Your task to perform on an android device: open app "Facebook Lite" Image 0: 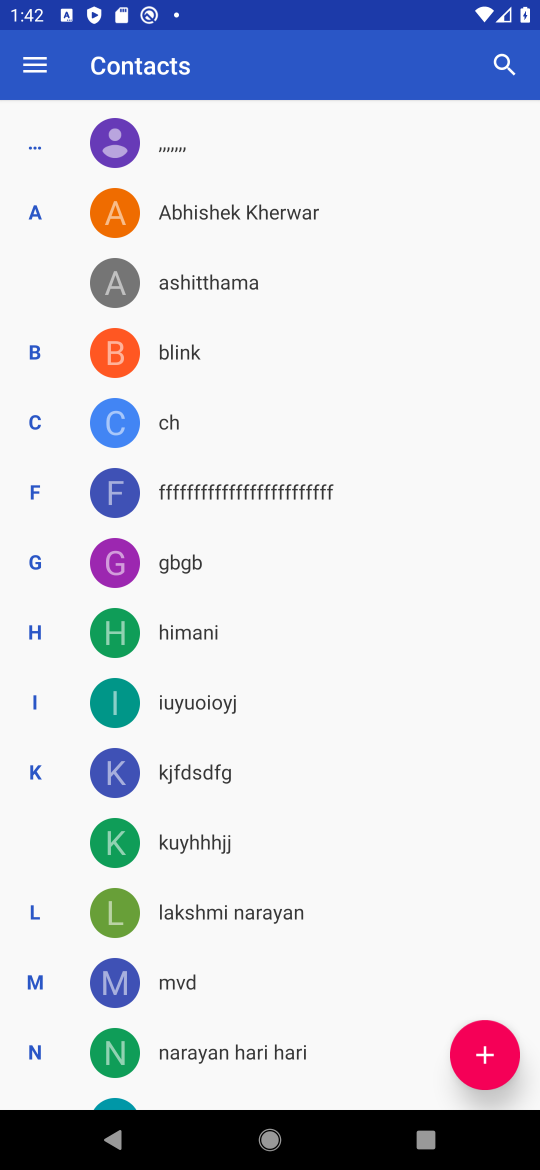
Step 0: press back button
Your task to perform on an android device: open app "Facebook Lite" Image 1: 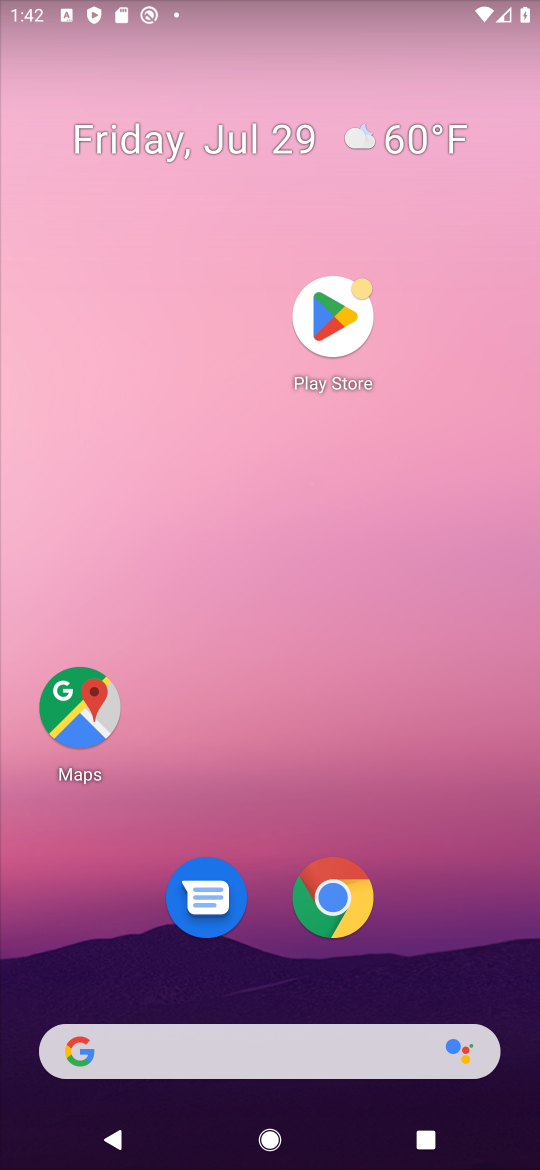
Step 1: click (308, 313)
Your task to perform on an android device: open app "Facebook Lite" Image 2: 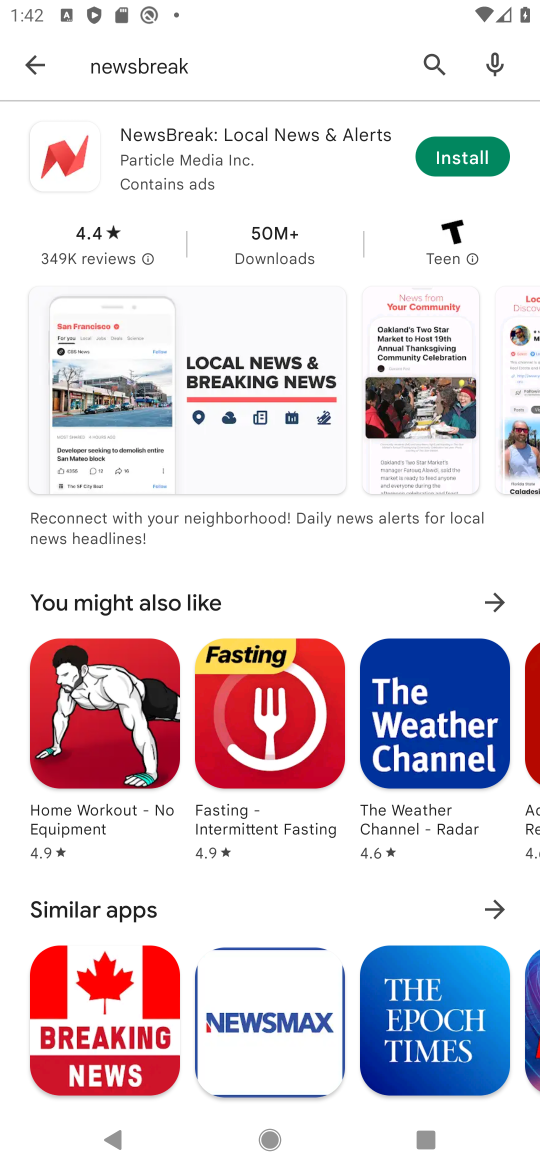
Step 2: click (434, 59)
Your task to perform on an android device: open app "Facebook Lite" Image 3: 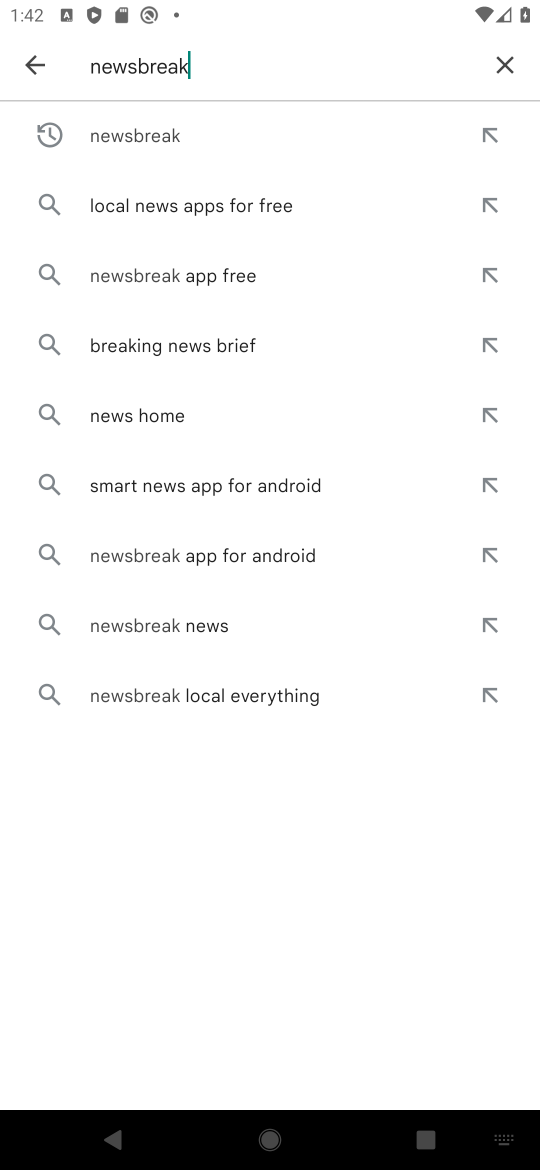
Step 3: click (498, 64)
Your task to perform on an android device: open app "Facebook Lite" Image 4: 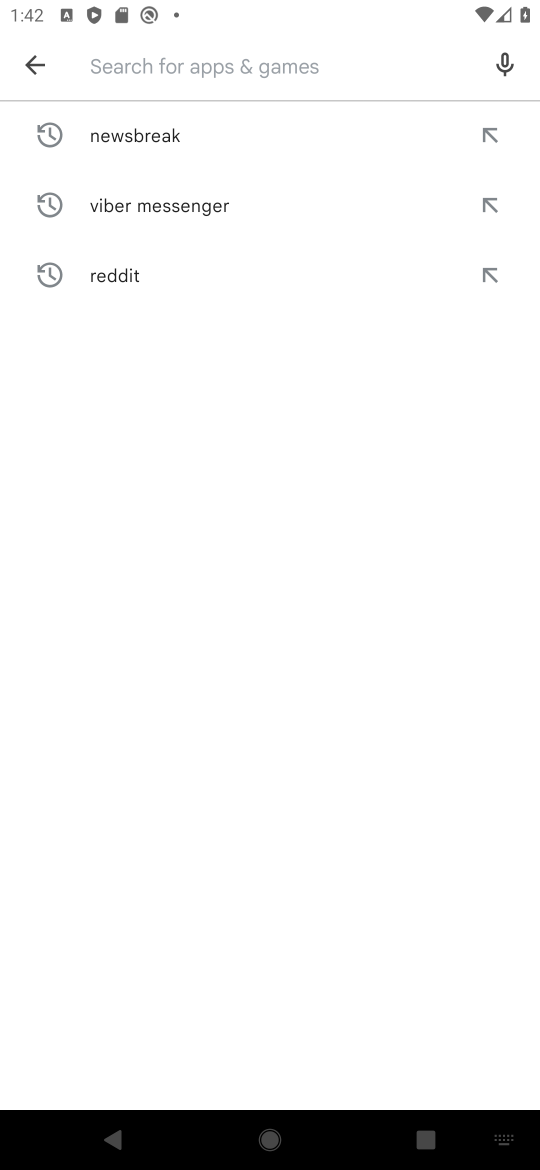
Step 4: type "facebook lite"
Your task to perform on an android device: open app "Facebook Lite" Image 5: 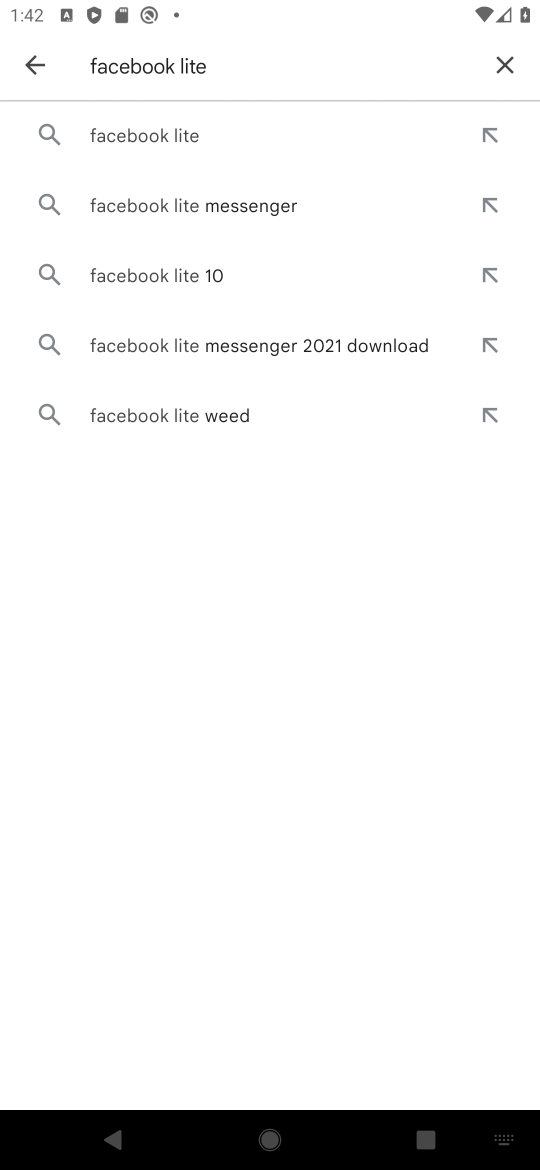
Step 5: click (211, 112)
Your task to perform on an android device: open app "Facebook Lite" Image 6: 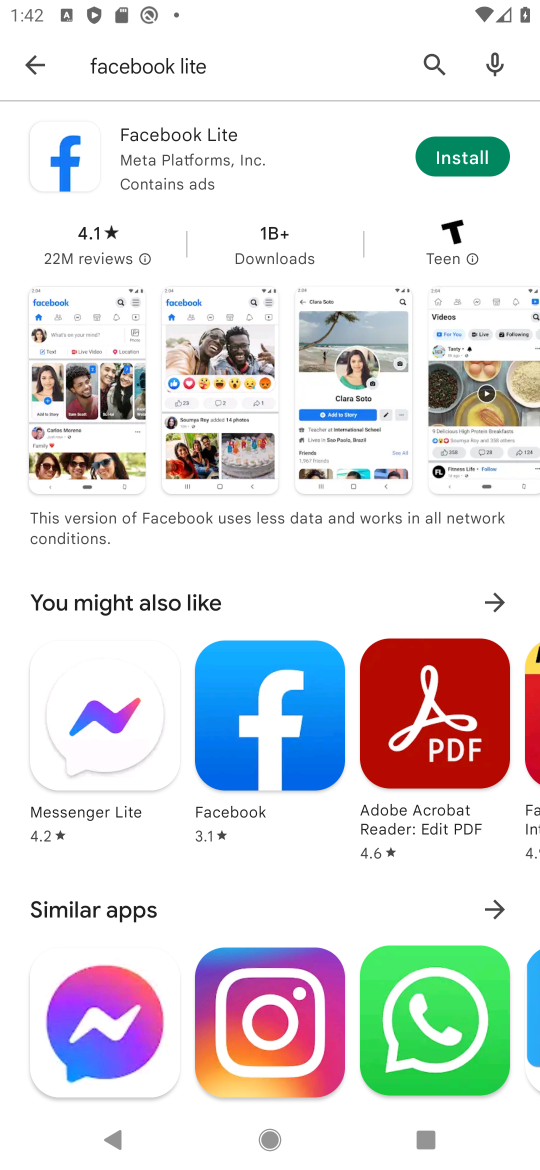
Step 6: task complete